Your task to perform on an android device: Go to ESPN.com Image 0: 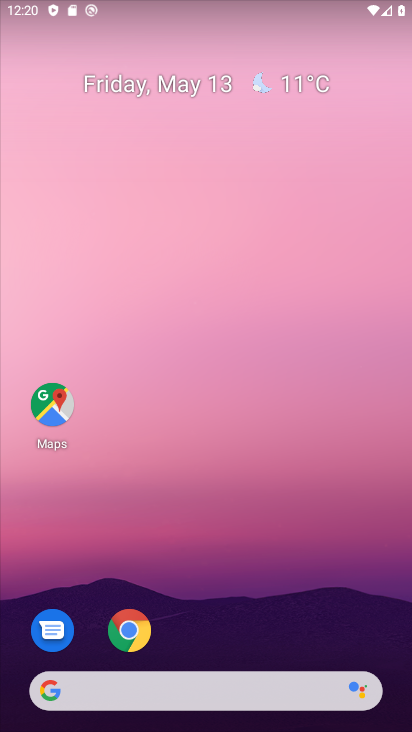
Step 0: press home button
Your task to perform on an android device: Go to ESPN.com Image 1: 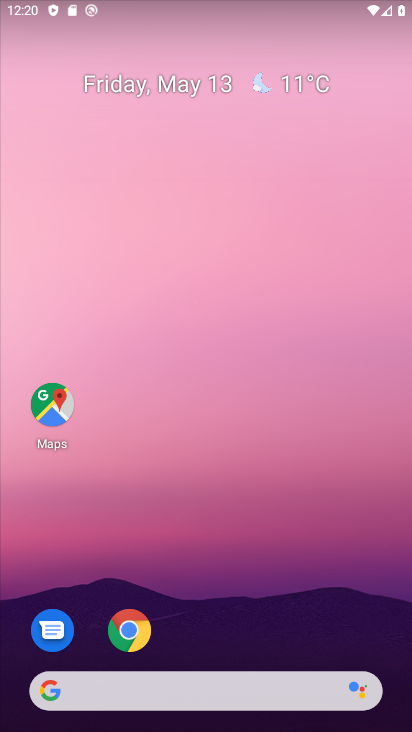
Step 1: click (132, 634)
Your task to perform on an android device: Go to ESPN.com Image 2: 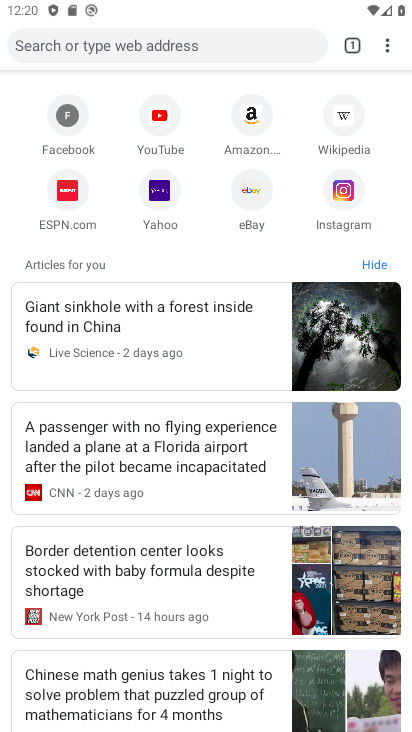
Step 2: click (62, 201)
Your task to perform on an android device: Go to ESPN.com Image 3: 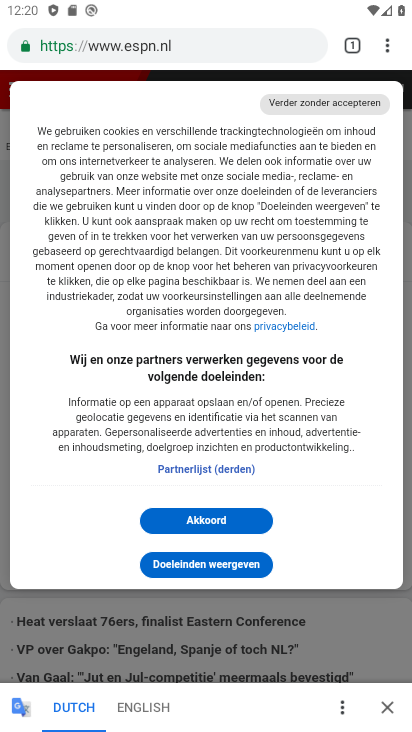
Step 3: task complete